Your task to perform on an android device: Check the news Image 0: 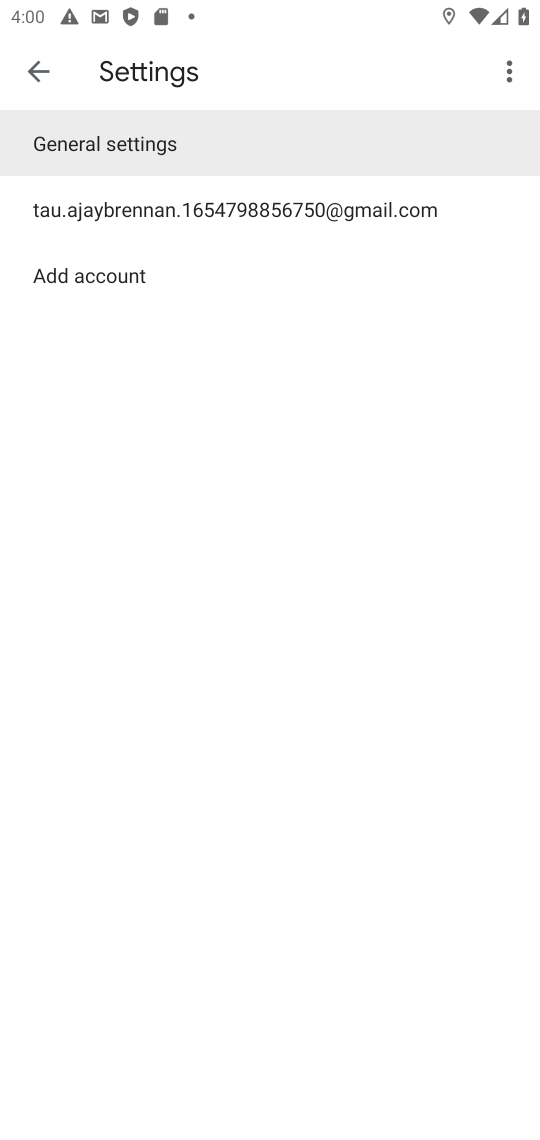
Step 0: press home button
Your task to perform on an android device: Check the news Image 1: 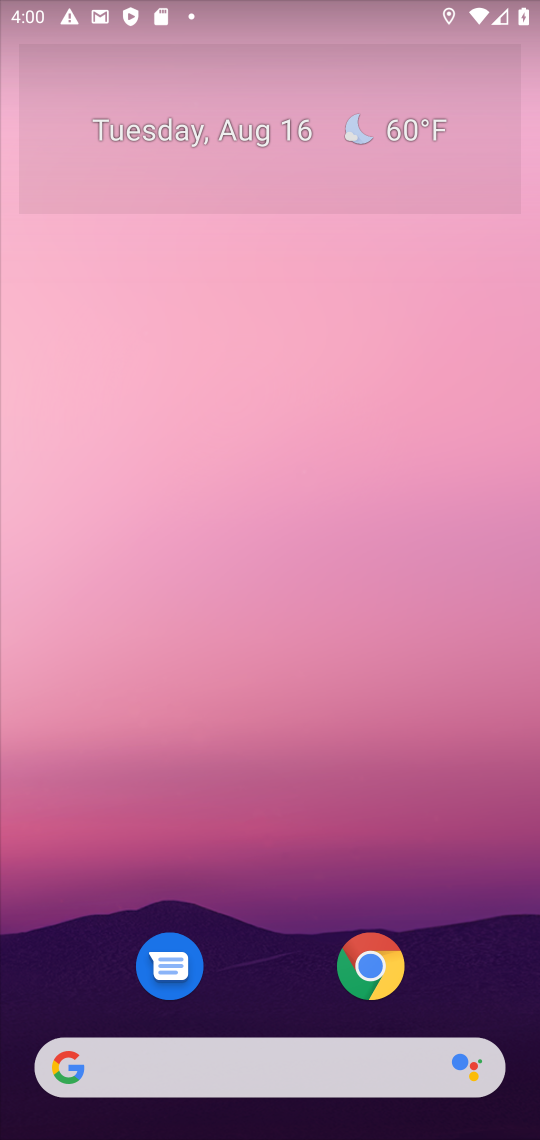
Step 1: click (165, 1049)
Your task to perform on an android device: Check the news Image 2: 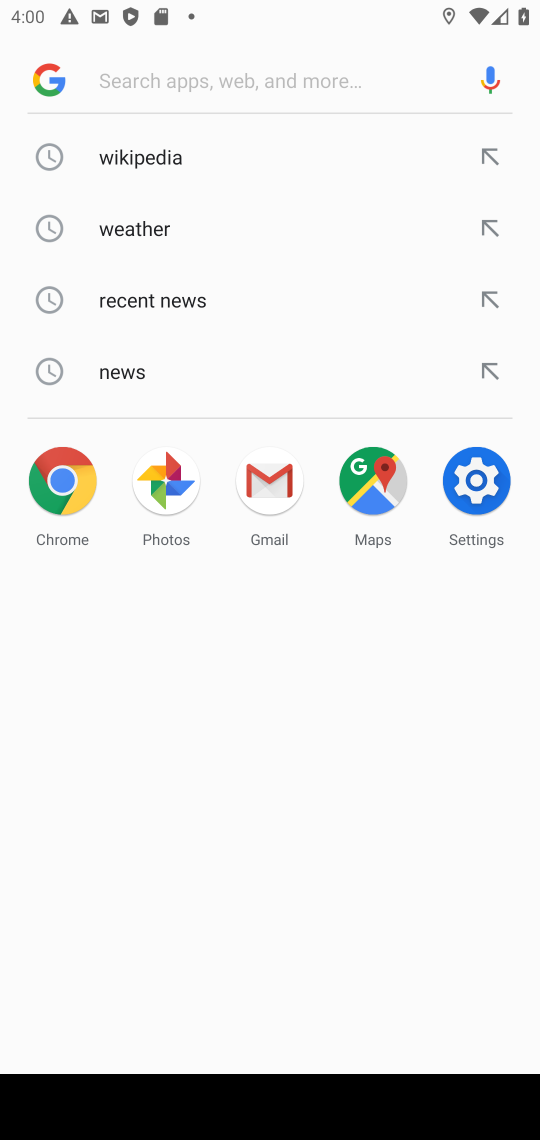
Step 2: type "Check the news"
Your task to perform on an android device: Check the news Image 3: 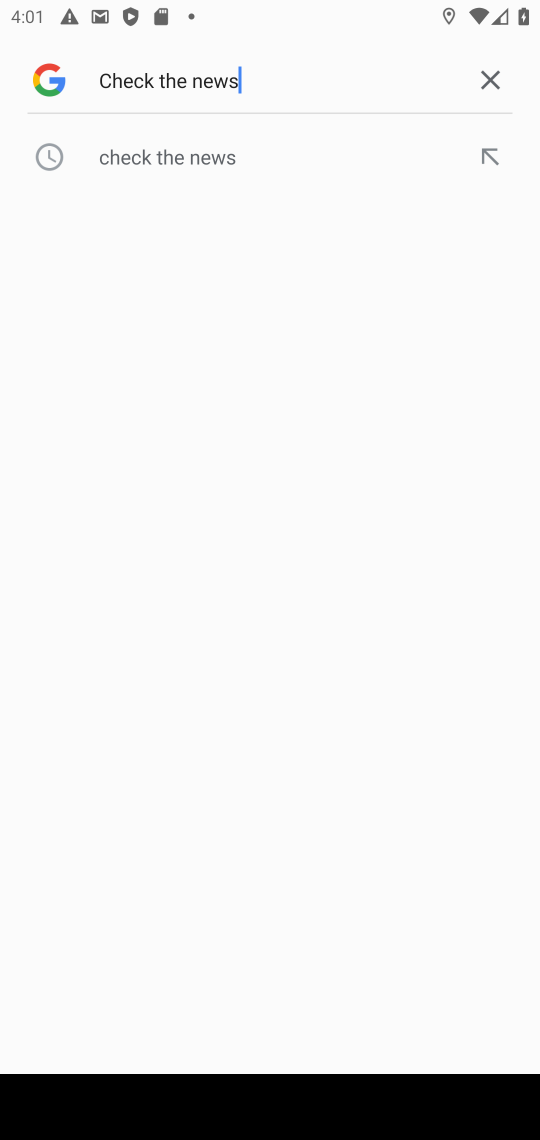
Step 3: click (204, 174)
Your task to perform on an android device: Check the news Image 4: 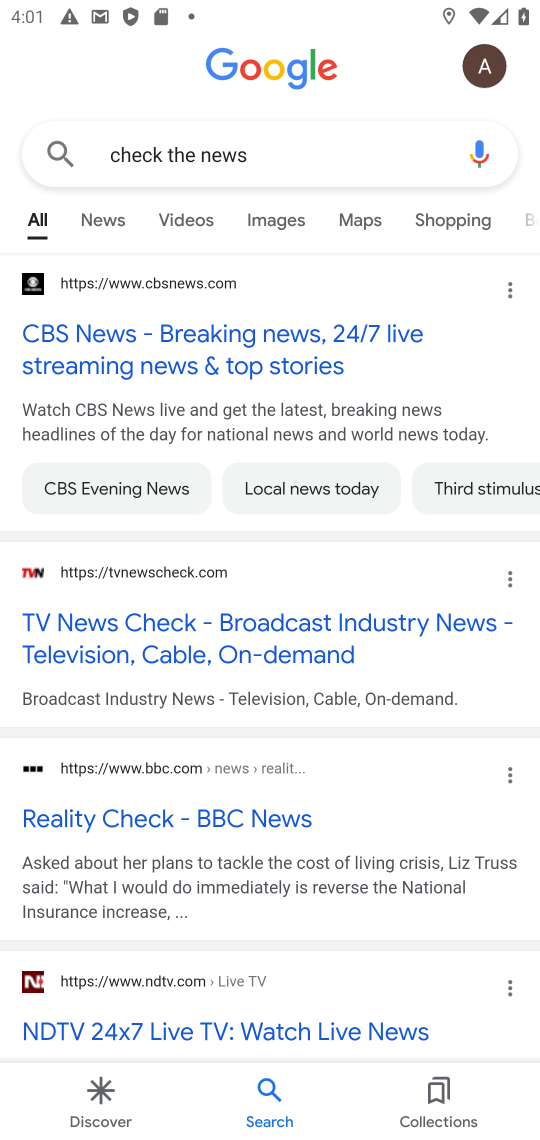
Step 4: task complete